Your task to perform on an android device: Go to notification settings Image 0: 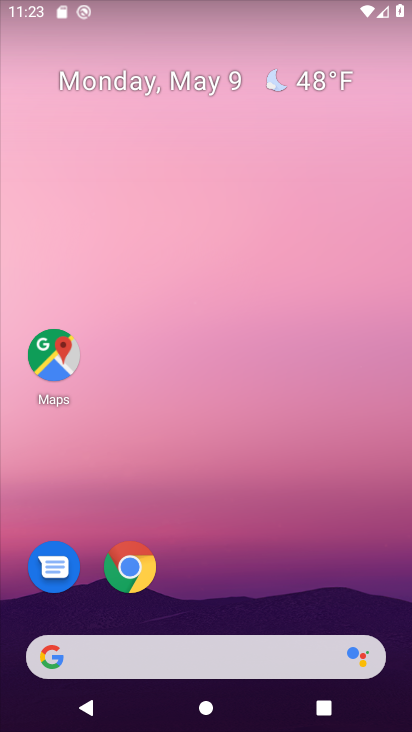
Step 0: drag from (203, 632) to (291, 77)
Your task to perform on an android device: Go to notification settings Image 1: 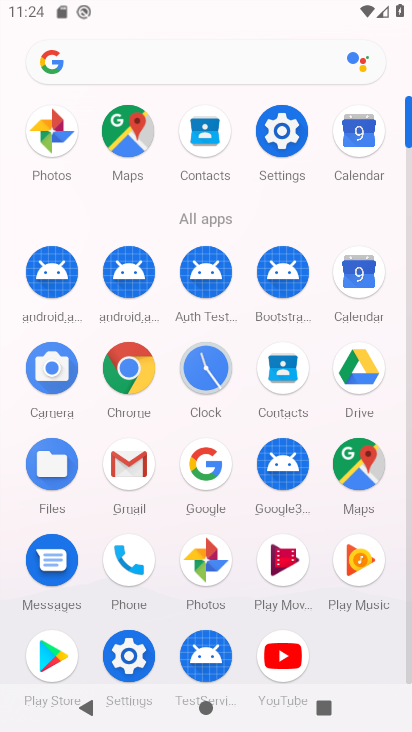
Step 1: click (285, 155)
Your task to perform on an android device: Go to notification settings Image 2: 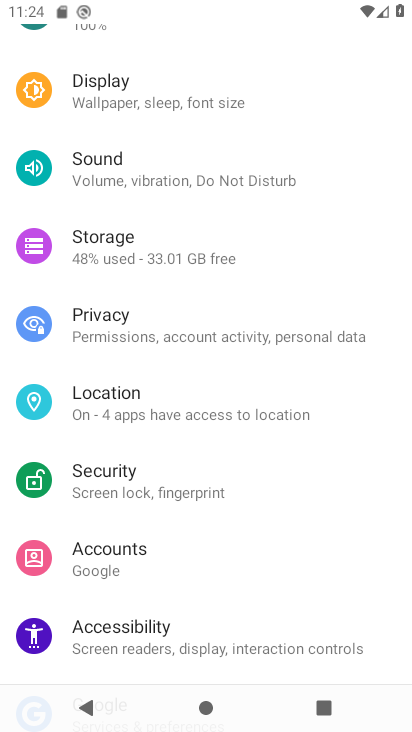
Step 2: drag from (184, 184) to (185, 388)
Your task to perform on an android device: Go to notification settings Image 3: 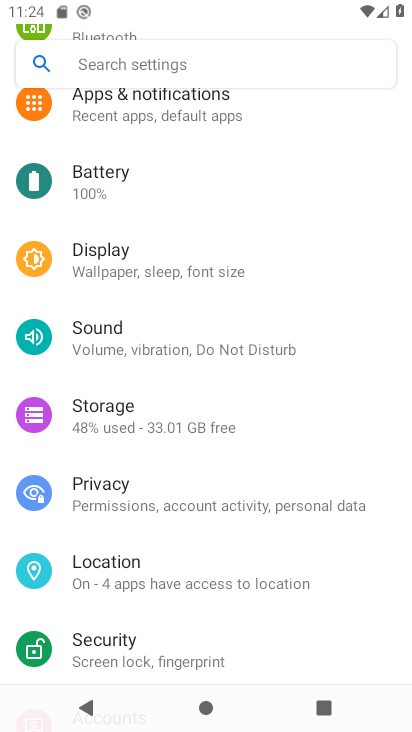
Step 3: drag from (174, 122) to (180, 293)
Your task to perform on an android device: Go to notification settings Image 4: 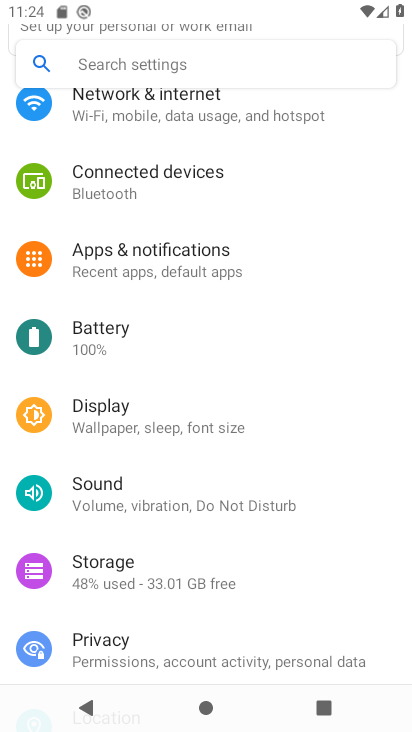
Step 4: click (176, 265)
Your task to perform on an android device: Go to notification settings Image 5: 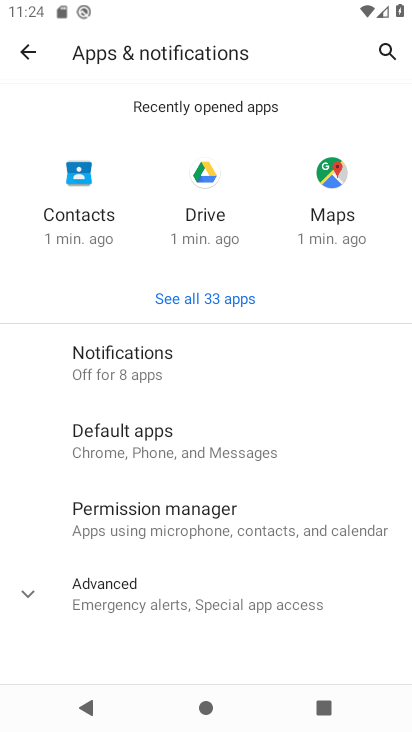
Step 5: click (126, 364)
Your task to perform on an android device: Go to notification settings Image 6: 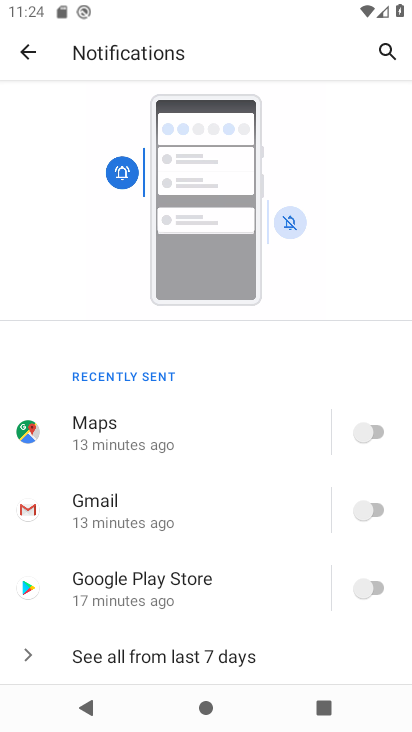
Step 6: task complete